Your task to perform on an android device: install app "Google Chat" Image 0: 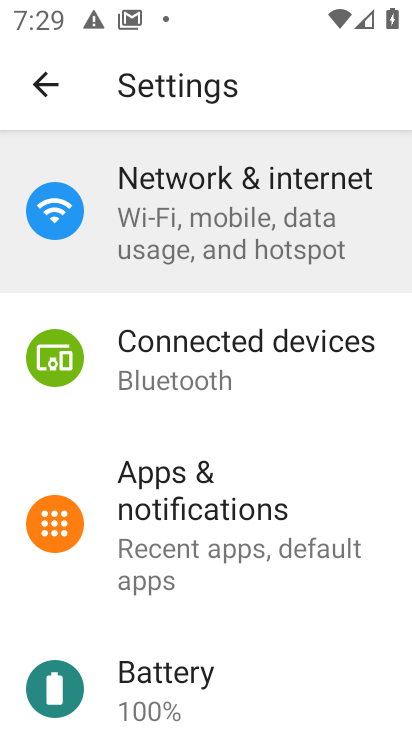
Step 0: press home button
Your task to perform on an android device: install app "Google Chat" Image 1: 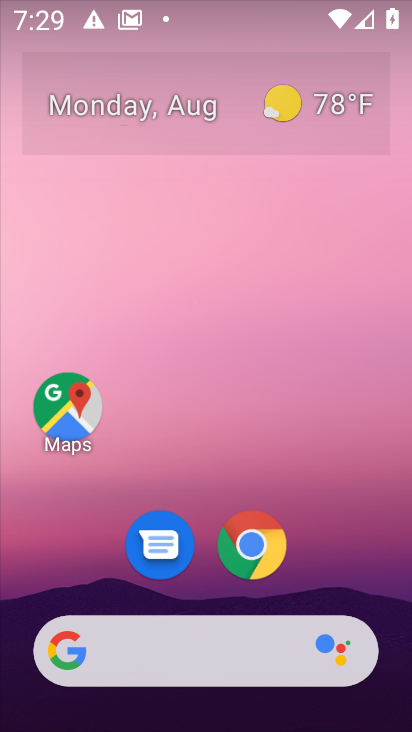
Step 1: drag from (345, 578) to (392, 63)
Your task to perform on an android device: install app "Google Chat" Image 2: 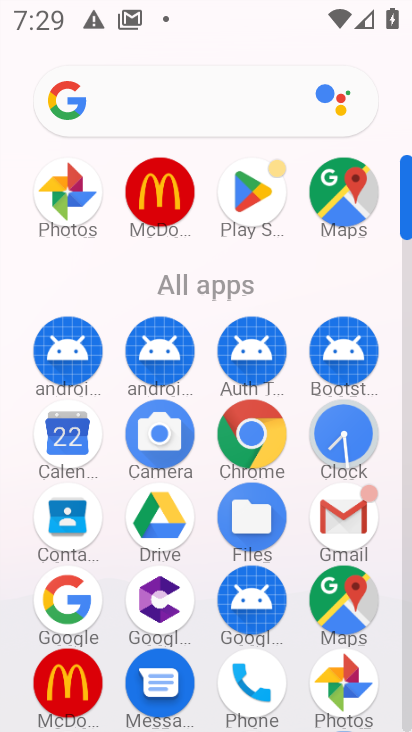
Step 2: click (255, 190)
Your task to perform on an android device: install app "Google Chat" Image 3: 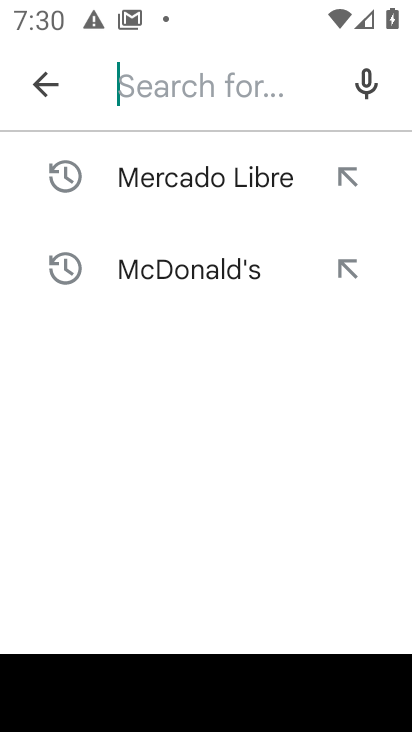
Step 3: type "Google Chat"
Your task to perform on an android device: install app "Google Chat" Image 4: 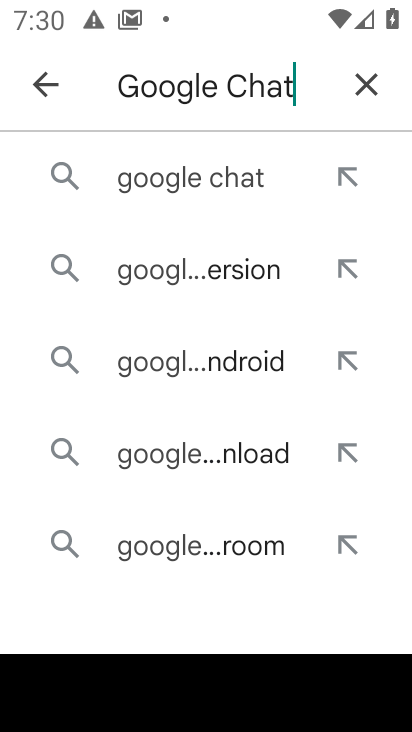
Step 4: click (228, 176)
Your task to perform on an android device: install app "Google Chat" Image 5: 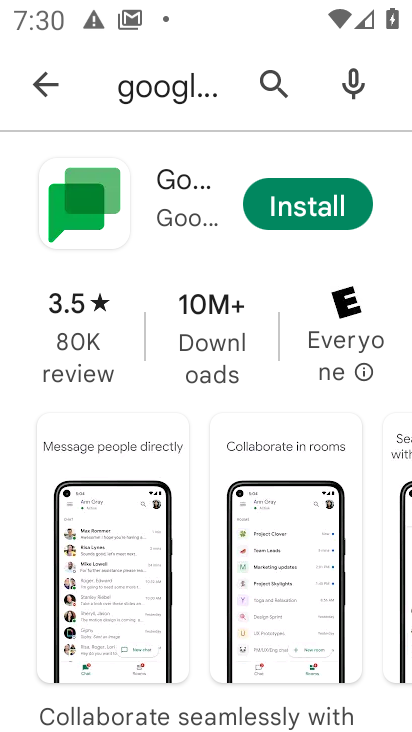
Step 5: click (311, 207)
Your task to perform on an android device: install app "Google Chat" Image 6: 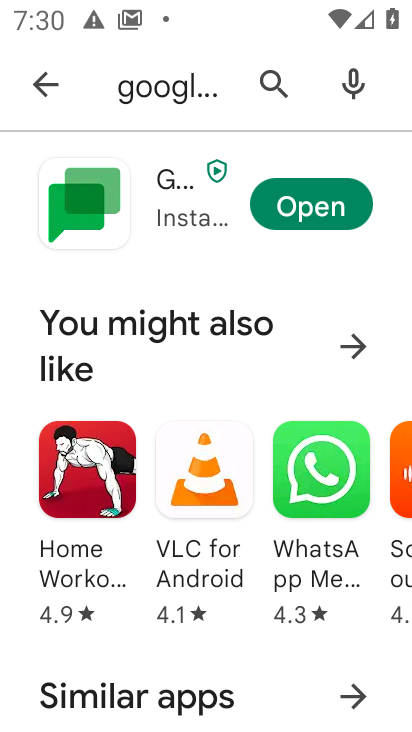
Step 6: task complete